Your task to perform on an android device: add a label to a message in the gmail app Image 0: 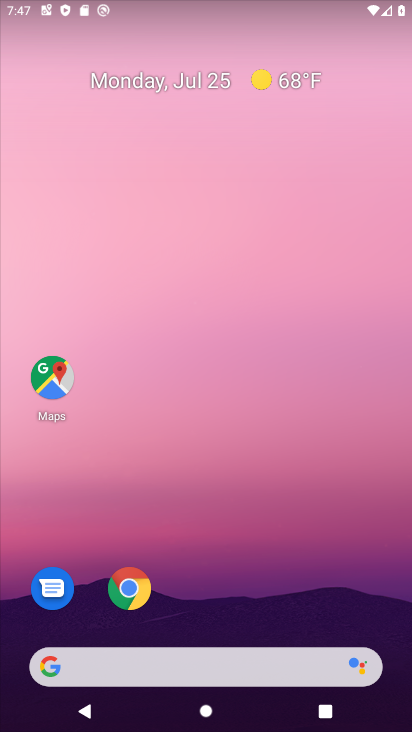
Step 0: press home button
Your task to perform on an android device: add a label to a message in the gmail app Image 1: 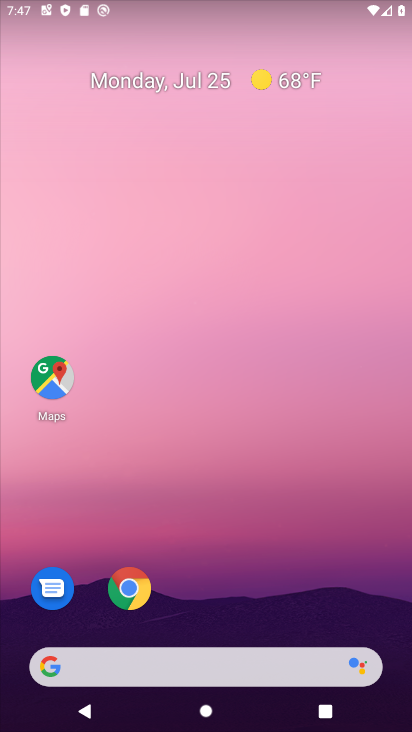
Step 1: drag from (367, 569) to (410, 217)
Your task to perform on an android device: add a label to a message in the gmail app Image 2: 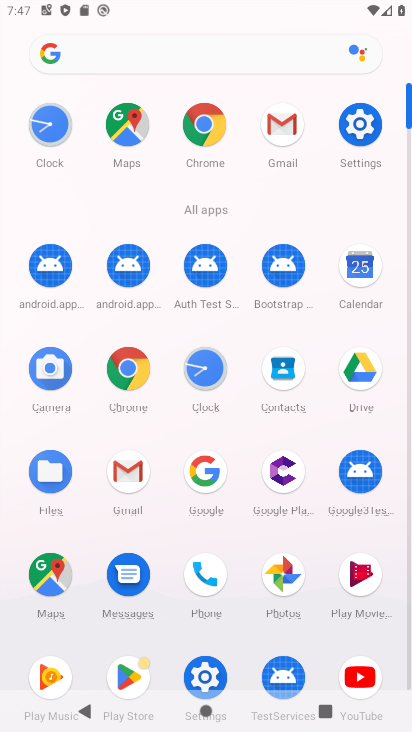
Step 2: click (278, 124)
Your task to perform on an android device: add a label to a message in the gmail app Image 3: 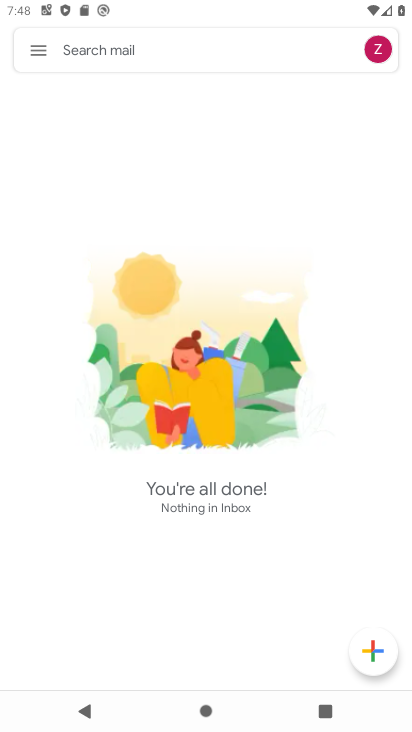
Step 3: click (39, 51)
Your task to perform on an android device: add a label to a message in the gmail app Image 4: 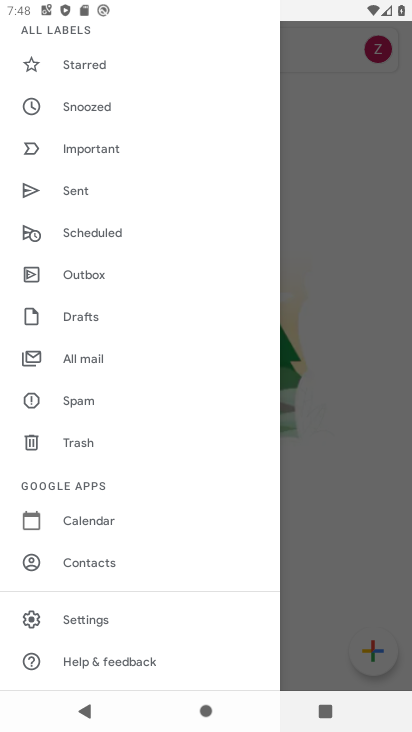
Step 4: drag from (234, 200) to (234, 354)
Your task to perform on an android device: add a label to a message in the gmail app Image 5: 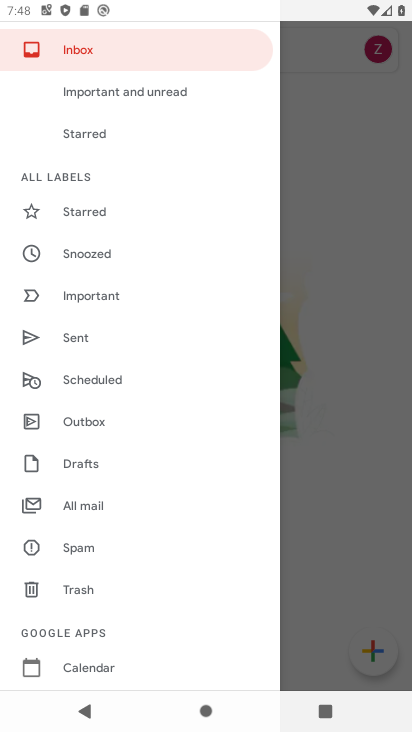
Step 5: drag from (221, 249) to (224, 457)
Your task to perform on an android device: add a label to a message in the gmail app Image 6: 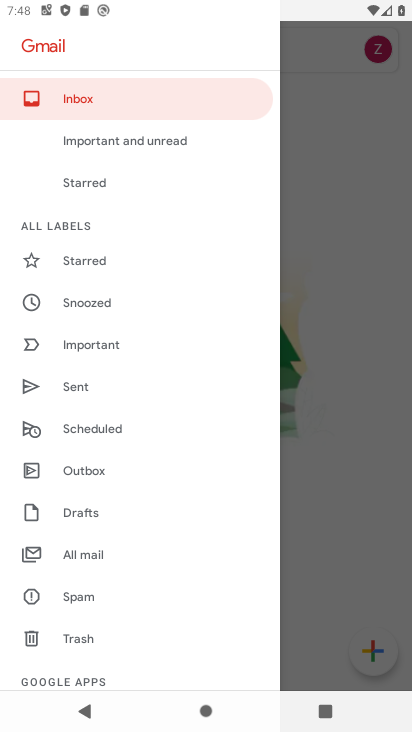
Step 6: click (119, 555)
Your task to perform on an android device: add a label to a message in the gmail app Image 7: 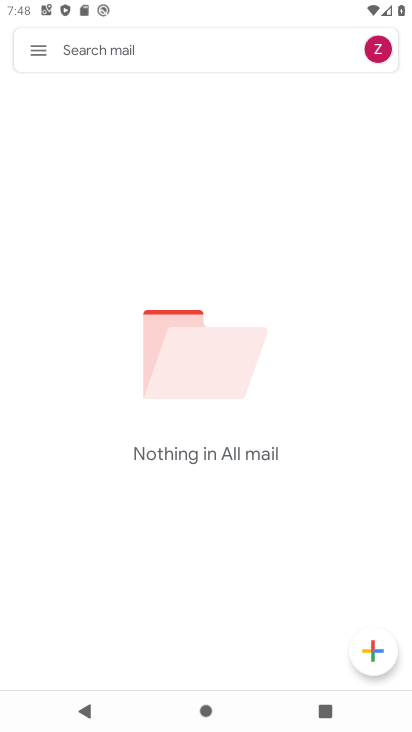
Step 7: task complete